Your task to perform on an android device: change alarm snooze length Image 0: 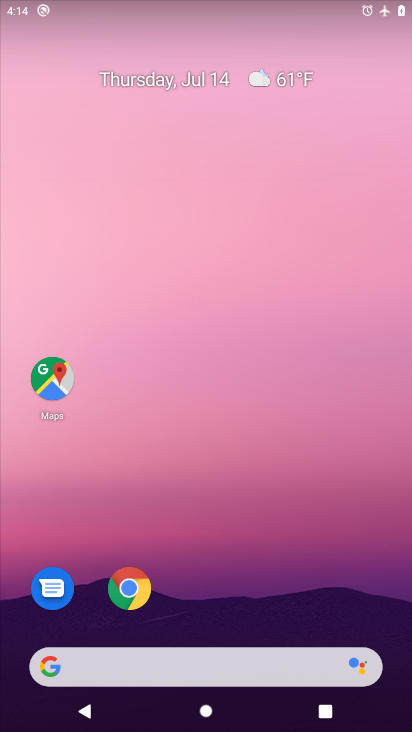
Step 0: press home button
Your task to perform on an android device: change alarm snooze length Image 1: 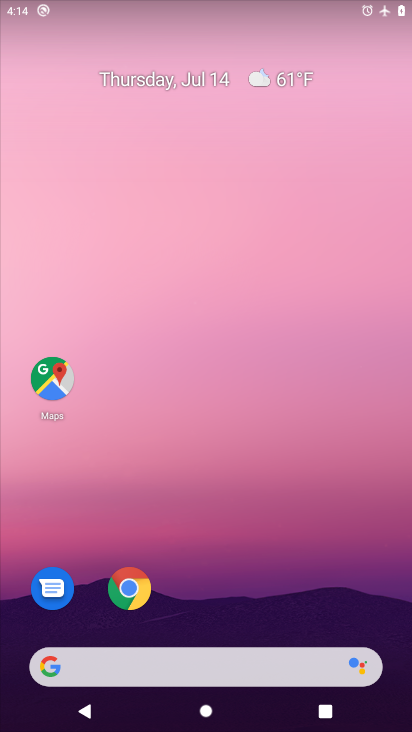
Step 1: drag from (230, 611) to (289, 44)
Your task to perform on an android device: change alarm snooze length Image 2: 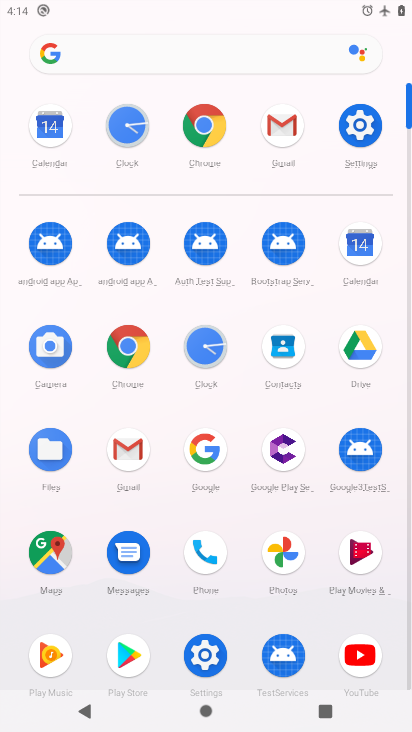
Step 2: click (120, 138)
Your task to perform on an android device: change alarm snooze length Image 3: 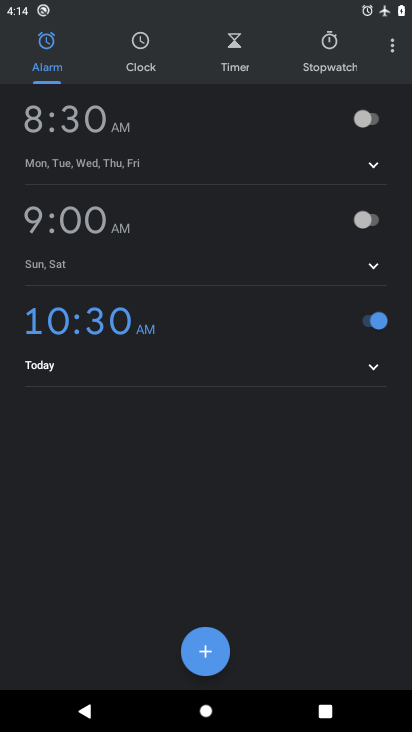
Step 3: click (393, 43)
Your task to perform on an android device: change alarm snooze length Image 4: 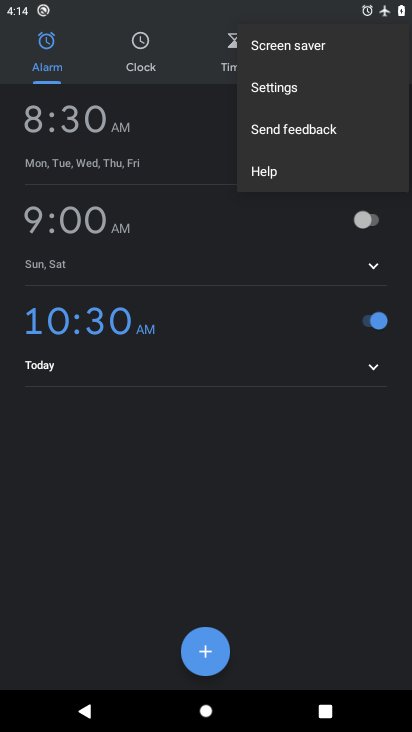
Step 4: click (285, 84)
Your task to perform on an android device: change alarm snooze length Image 5: 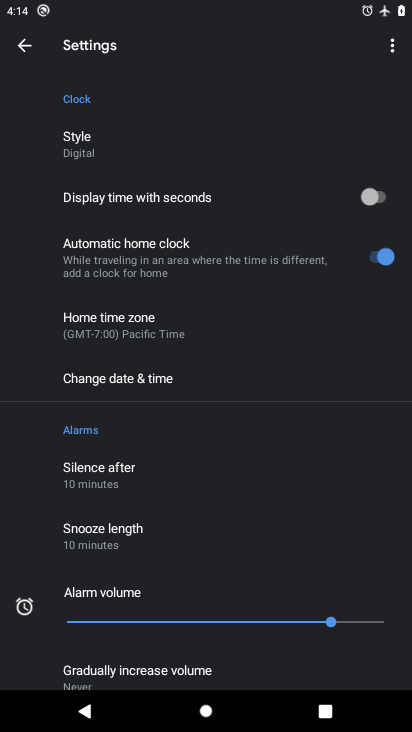
Step 5: click (101, 544)
Your task to perform on an android device: change alarm snooze length Image 6: 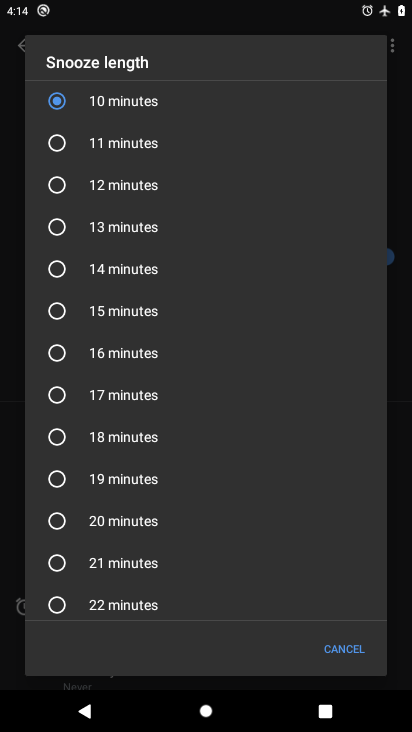
Step 6: click (99, 190)
Your task to perform on an android device: change alarm snooze length Image 7: 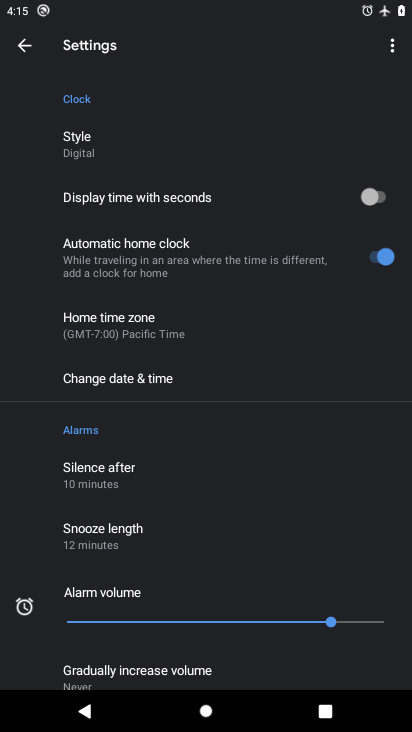
Step 7: task complete